Your task to perform on an android device: open sync settings in chrome Image 0: 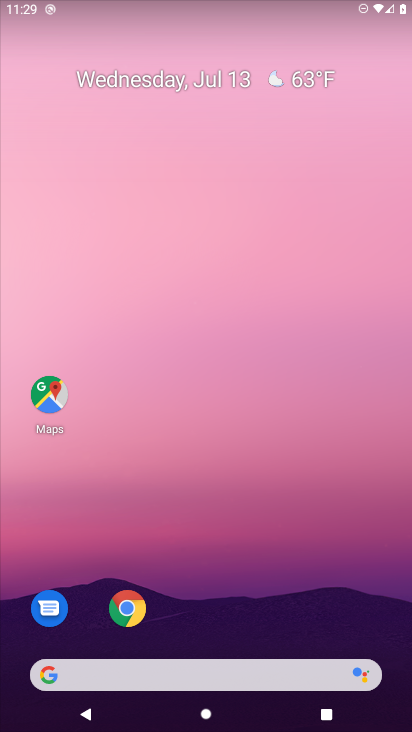
Step 0: click (140, 610)
Your task to perform on an android device: open sync settings in chrome Image 1: 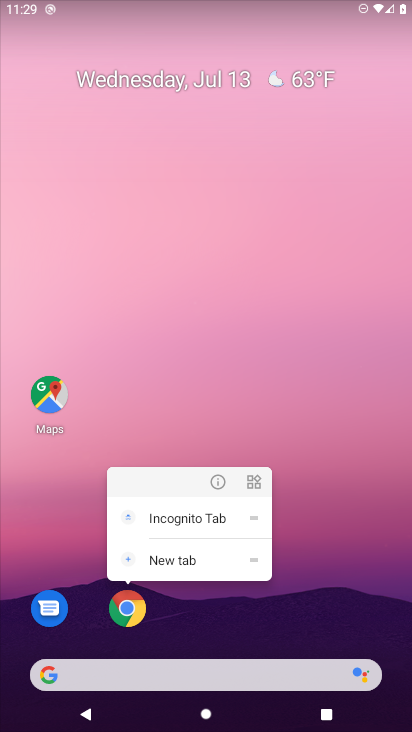
Step 1: click (140, 610)
Your task to perform on an android device: open sync settings in chrome Image 2: 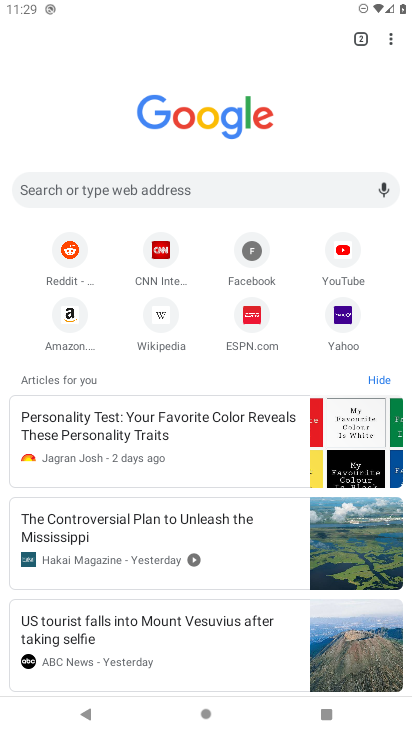
Step 2: drag from (393, 28) to (253, 321)
Your task to perform on an android device: open sync settings in chrome Image 3: 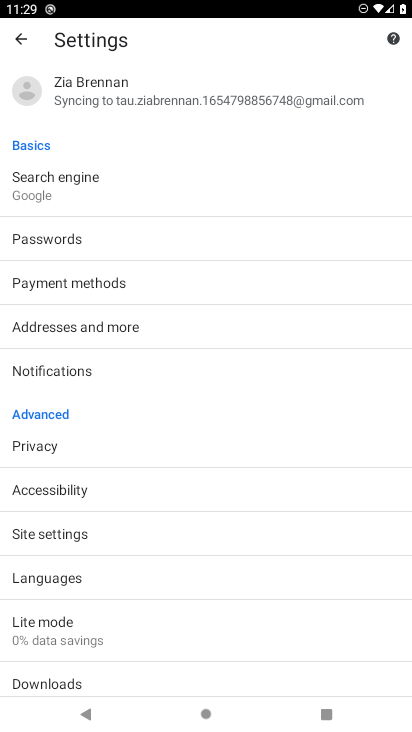
Step 3: click (44, 535)
Your task to perform on an android device: open sync settings in chrome Image 4: 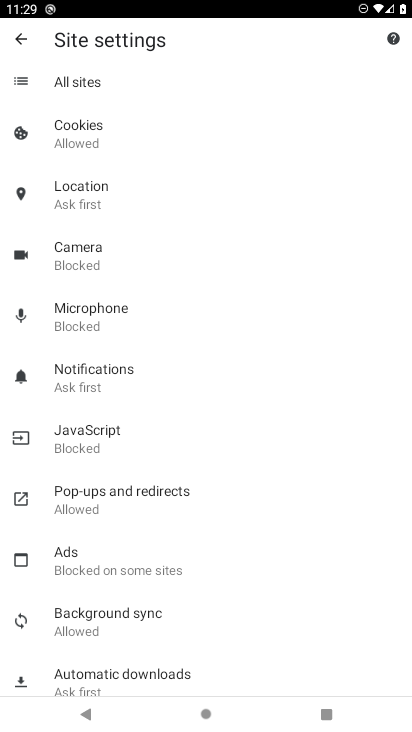
Step 4: drag from (238, 631) to (239, 495)
Your task to perform on an android device: open sync settings in chrome Image 5: 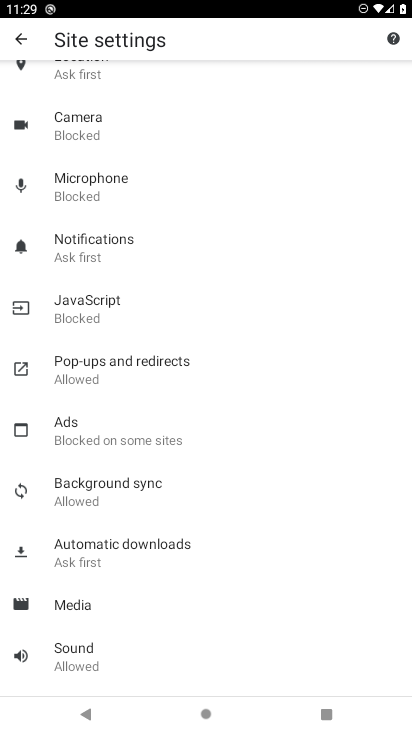
Step 5: click (133, 488)
Your task to perform on an android device: open sync settings in chrome Image 6: 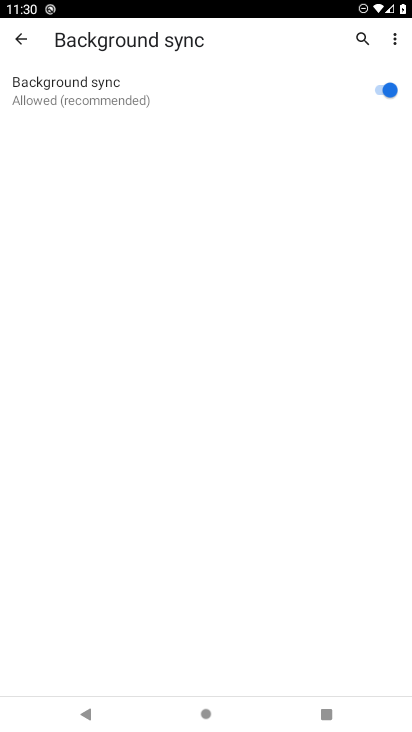
Step 6: task complete